Your task to perform on an android device: change the clock display to analog Image 0: 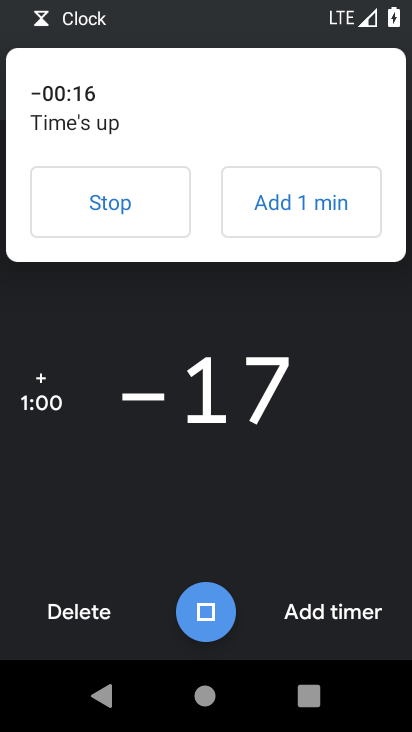
Step 0: press home button
Your task to perform on an android device: change the clock display to analog Image 1: 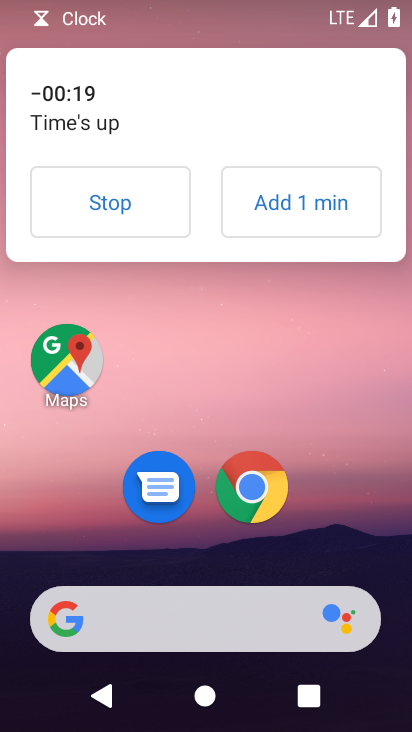
Step 1: drag from (226, 609) to (302, 196)
Your task to perform on an android device: change the clock display to analog Image 2: 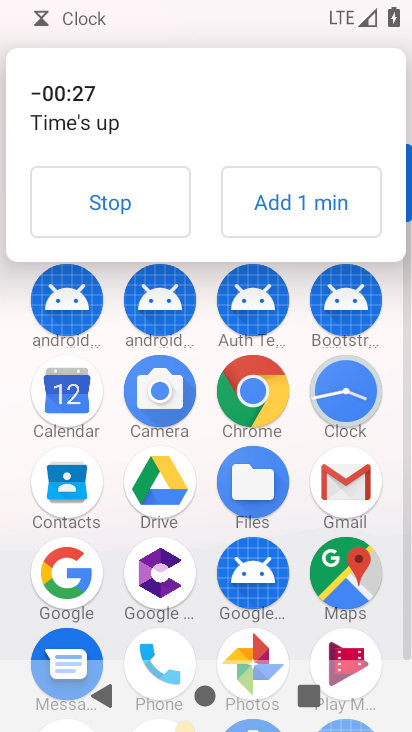
Step 2: click (126, 211)
Your task to perform on an android device: change the clock display to analog Image 3: 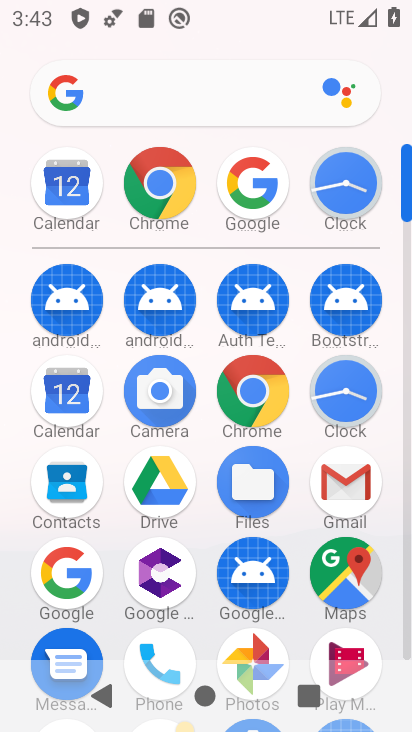
Step 3: click (340, 184)
Your task to perform on an android device: change the clock display to analog Image 4: 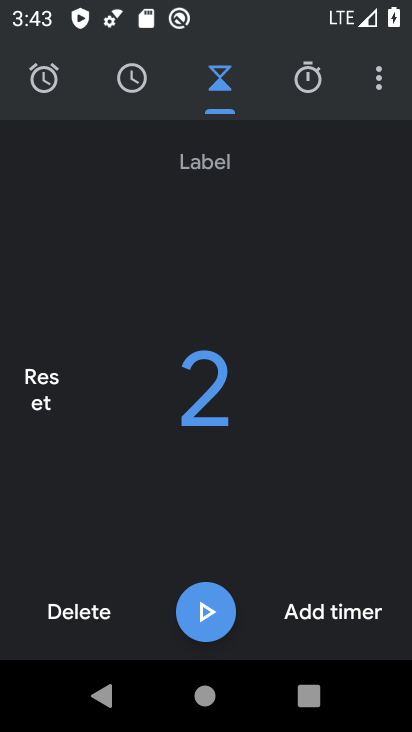
Step 4: click (388, 87)
Your task to perform on an android device: change the clock display to analog Image 5: 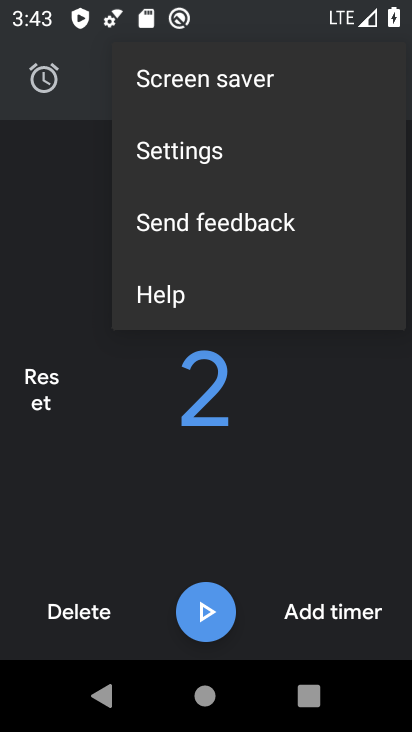
Step 5: click (180, 161)
Your task to perform on an android device: change the clock display to analog Image 6: 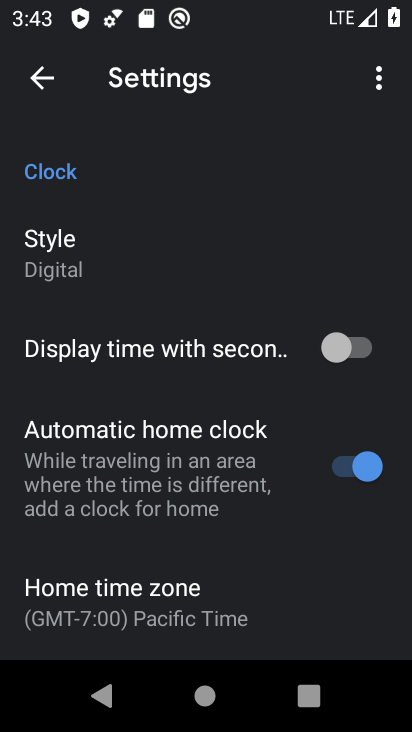
Step 6: click (80, 254)
Your task to perform on an android device: change the clock display to analog Image 7: 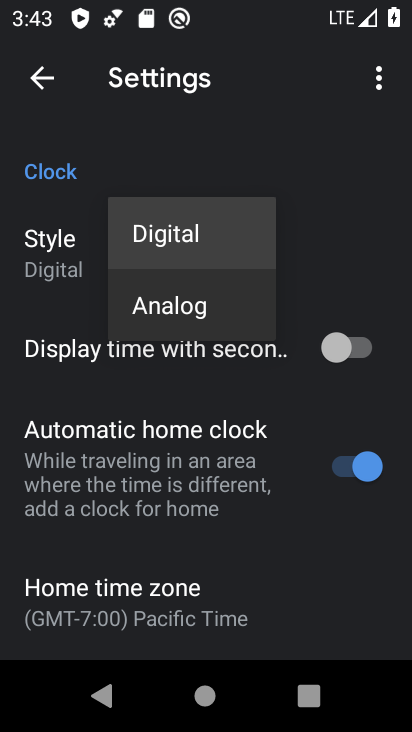
Step 7: click (162, 310)
Your task to perform on an android device: change the clock display to analog Image 8: 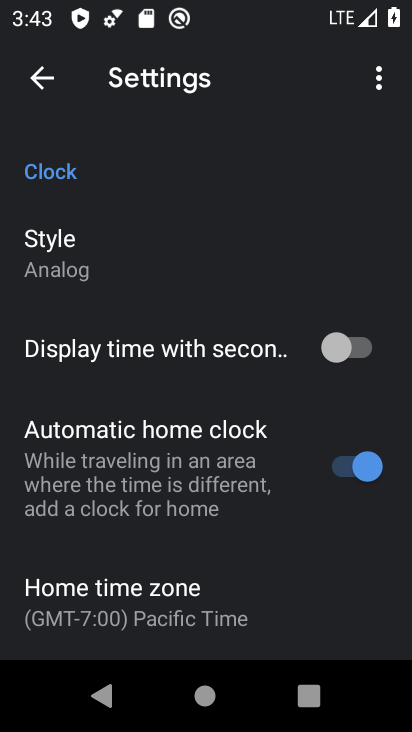
Step 8: task complete